Your task to perform on an android device: What time is it in Berlin? Image 0: 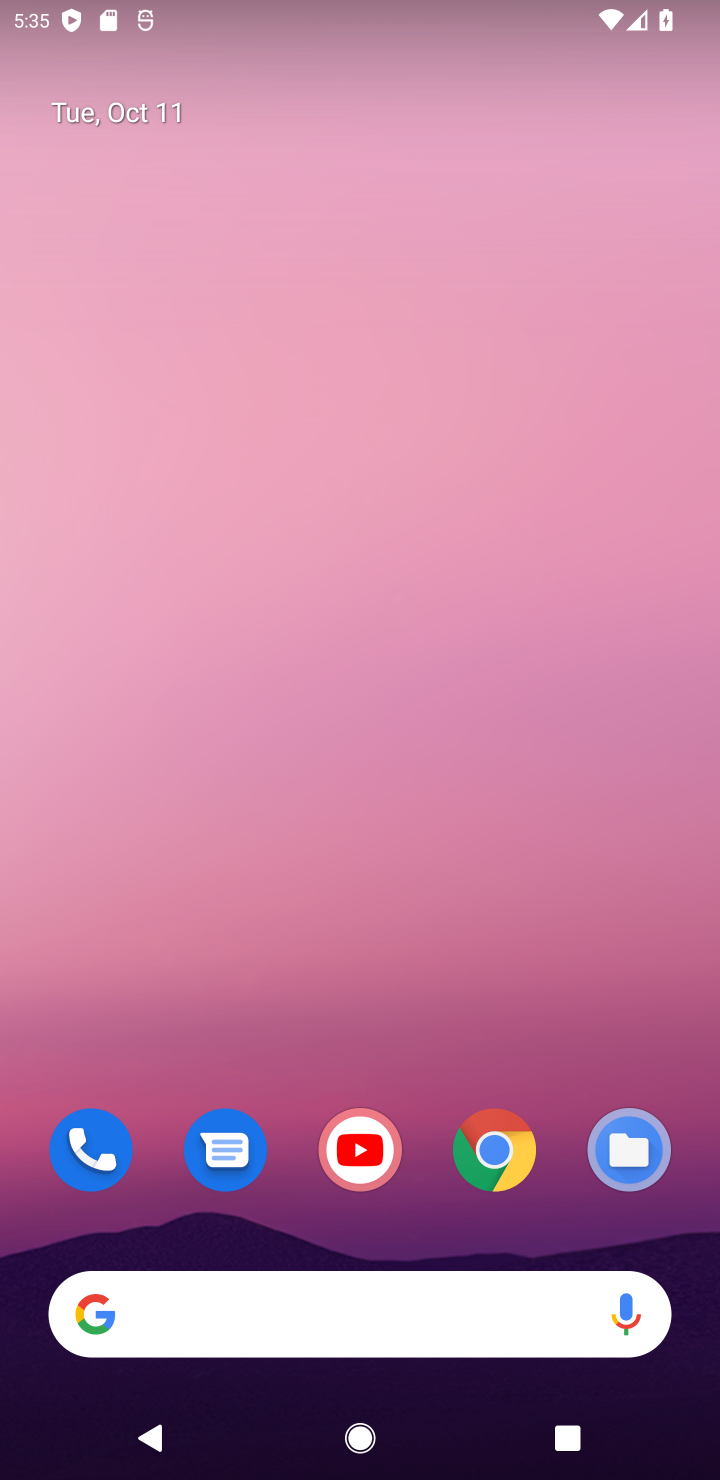
Step 0: click (493, 1156)
Your task to perform on an android device: What time is it in Berlin? Image 1: 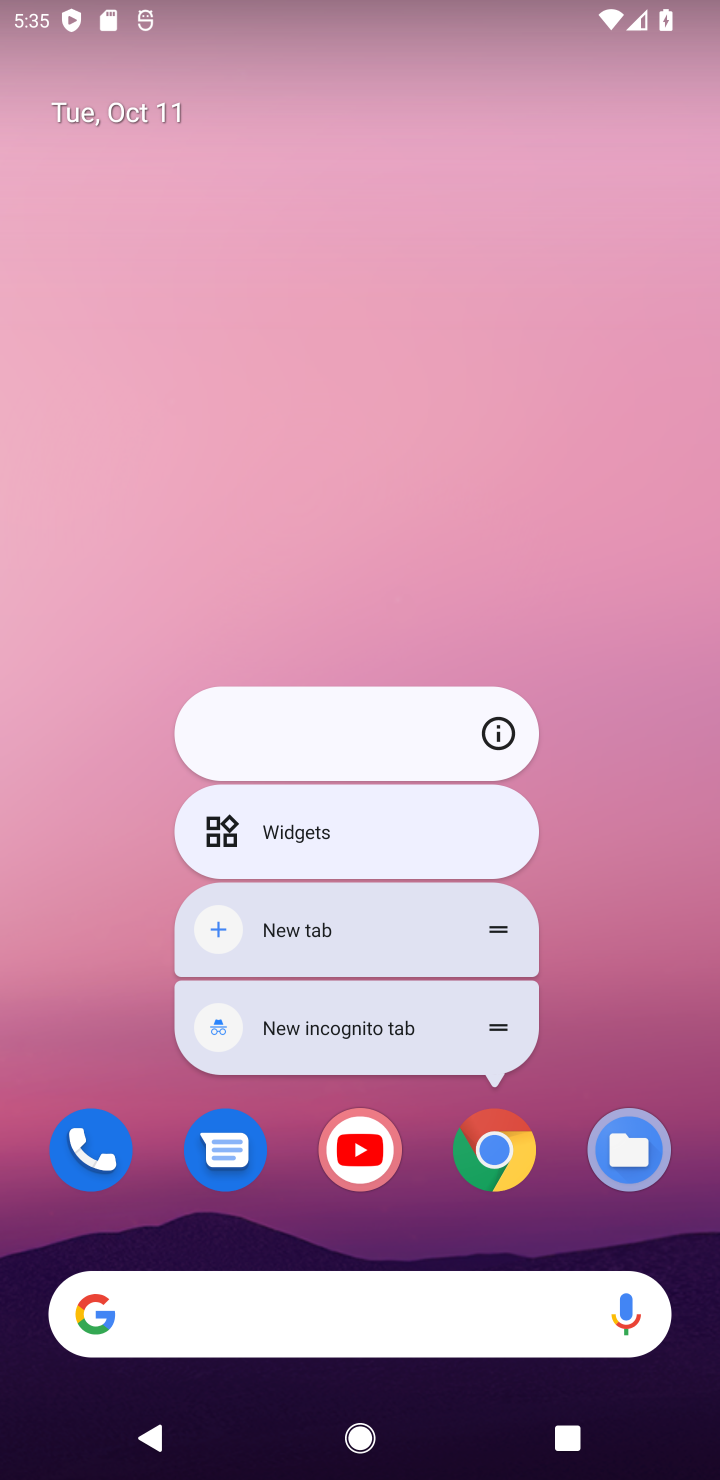
Step 1: click (507, 1160)
Your task to perform on an android device: What time is it in Berlin? Image 2: 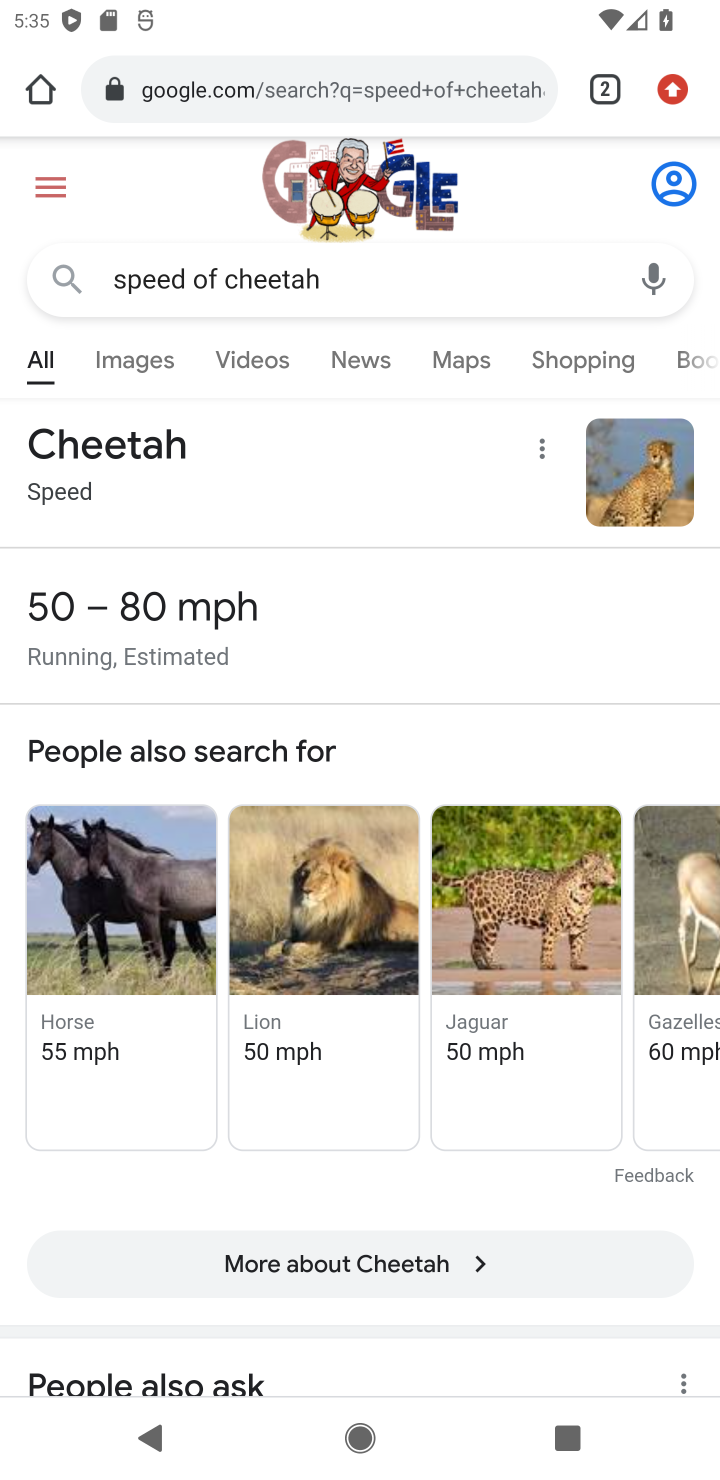
Step 2: click (340, 100)
Your task to perform on an android device: What time is it in Berlin? Image 3: 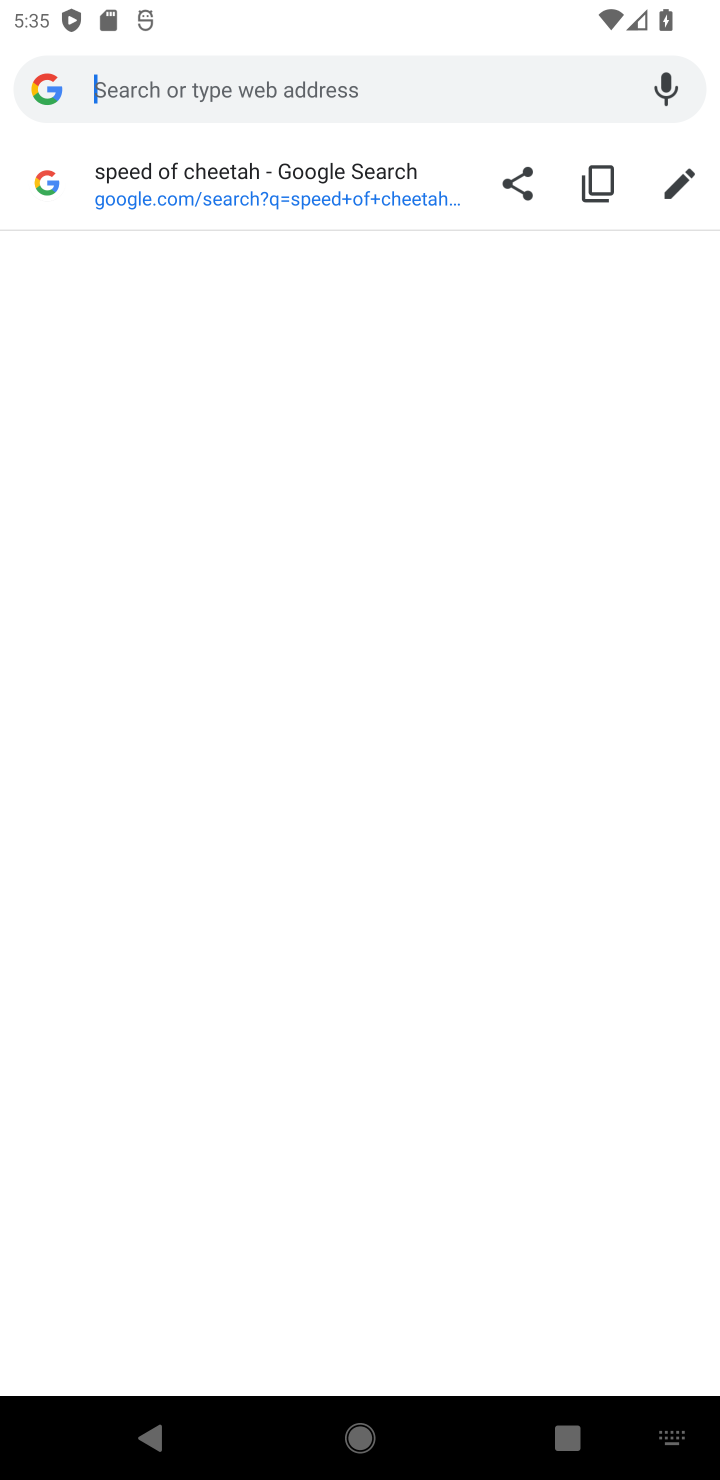
Step 3: type "time in berlin"
Your task to perform on an android device: What time is it in Berlin? Image 4: 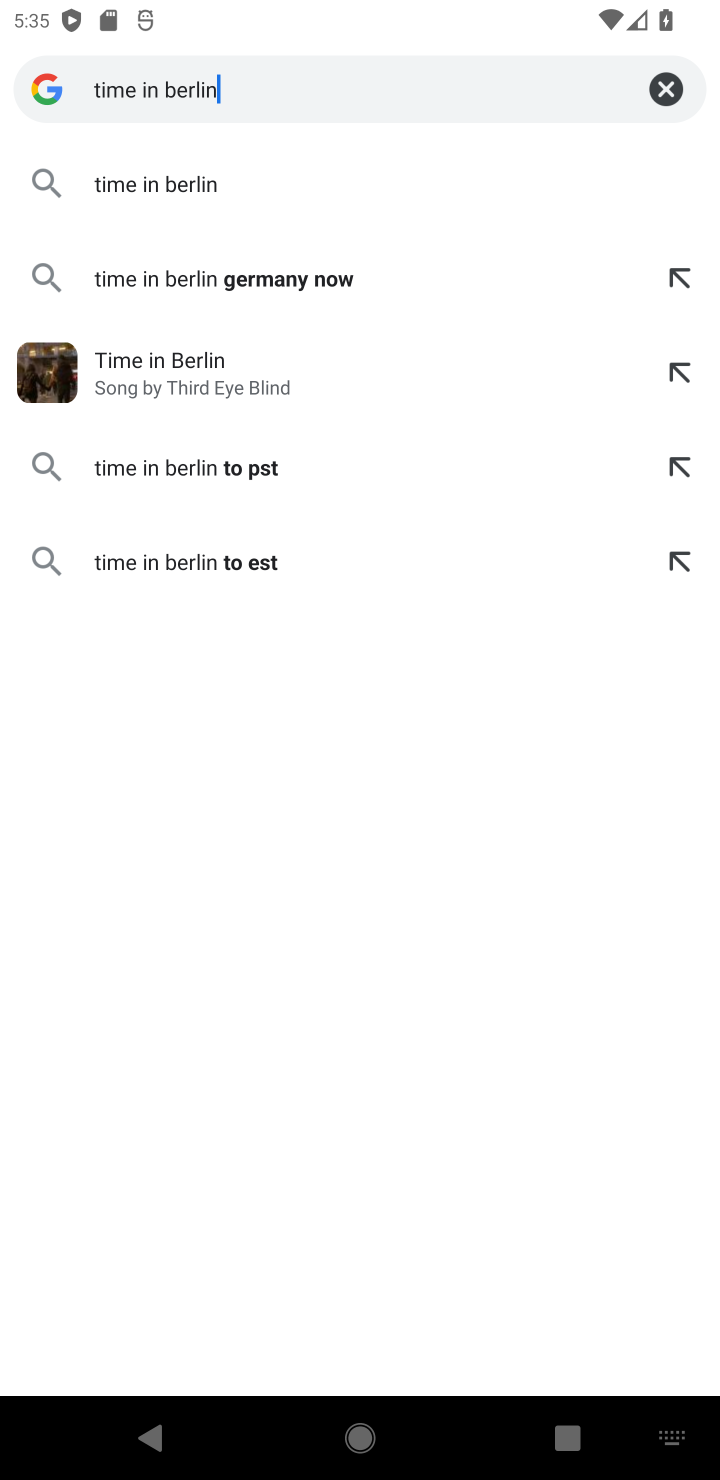
Step 4: click (166, 190)
Your task to perform on an android device: What time is it in Berlin? Image 5: 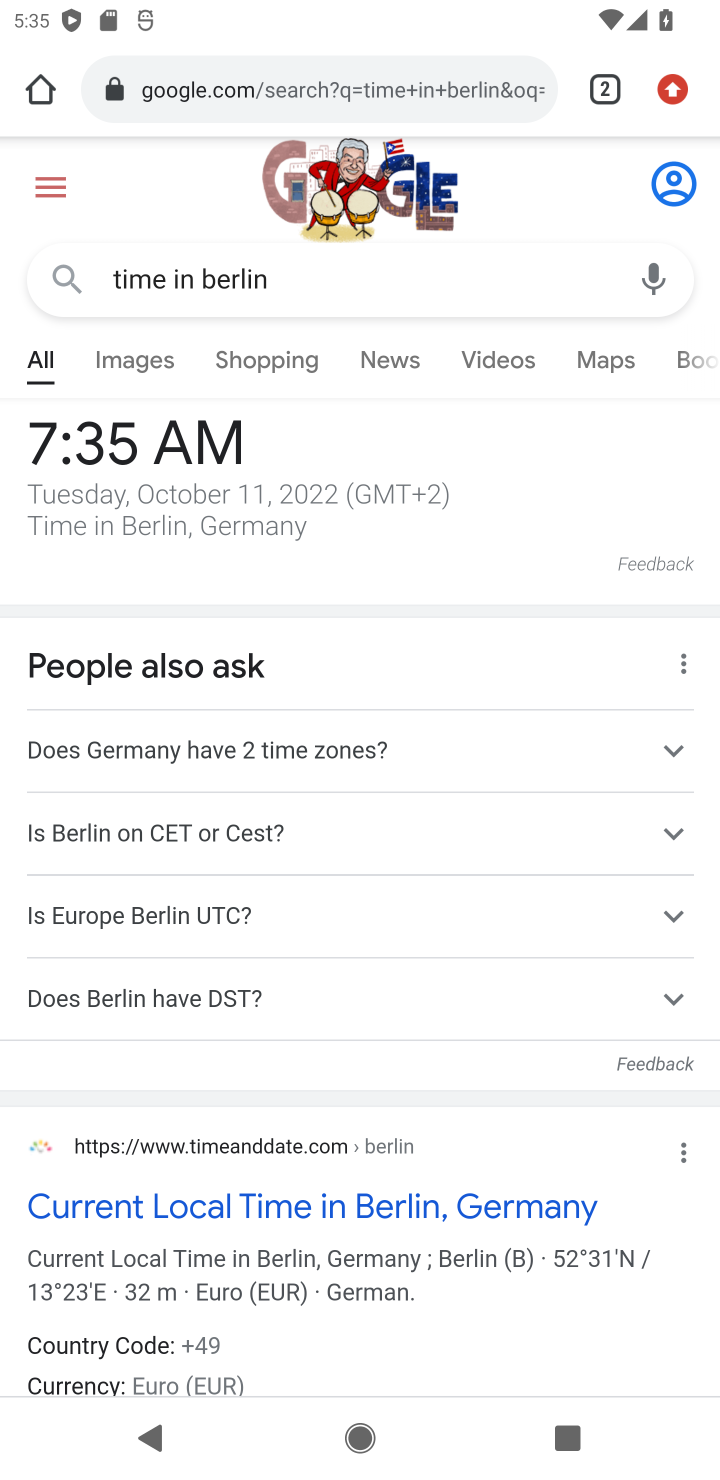
Step 5: task complete